Your task to perform on an android device: Search for "usb-a to usb-b" on walmart, select the first entry, and add it to the cart. Image 0: 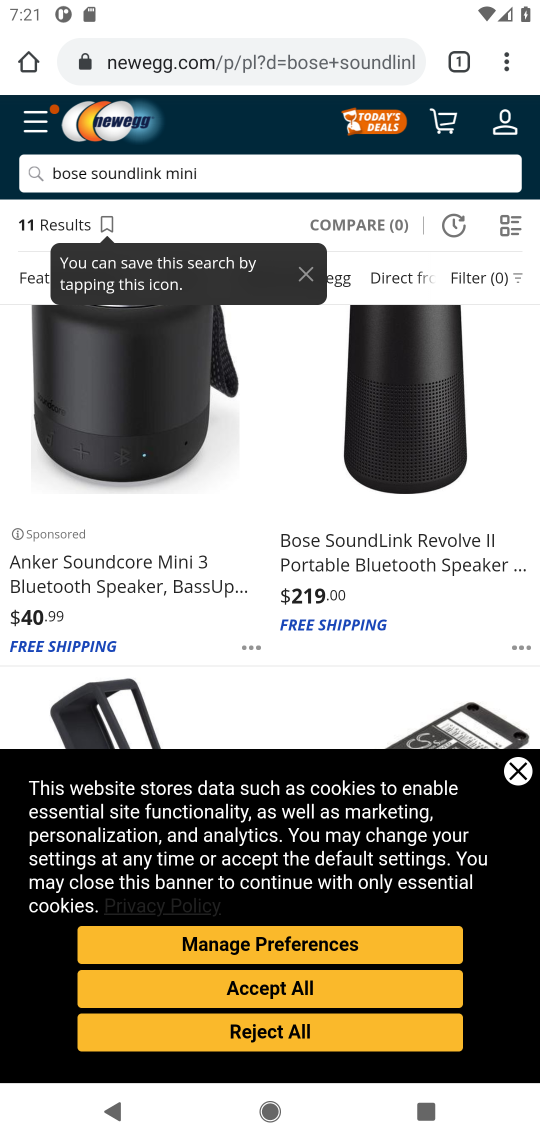
Step 0: click (196, 71)
Your task to perform on an android device: Search for "usb-a to usb-b" on walmart, select the first entry, and add it to the cart. Image 1: 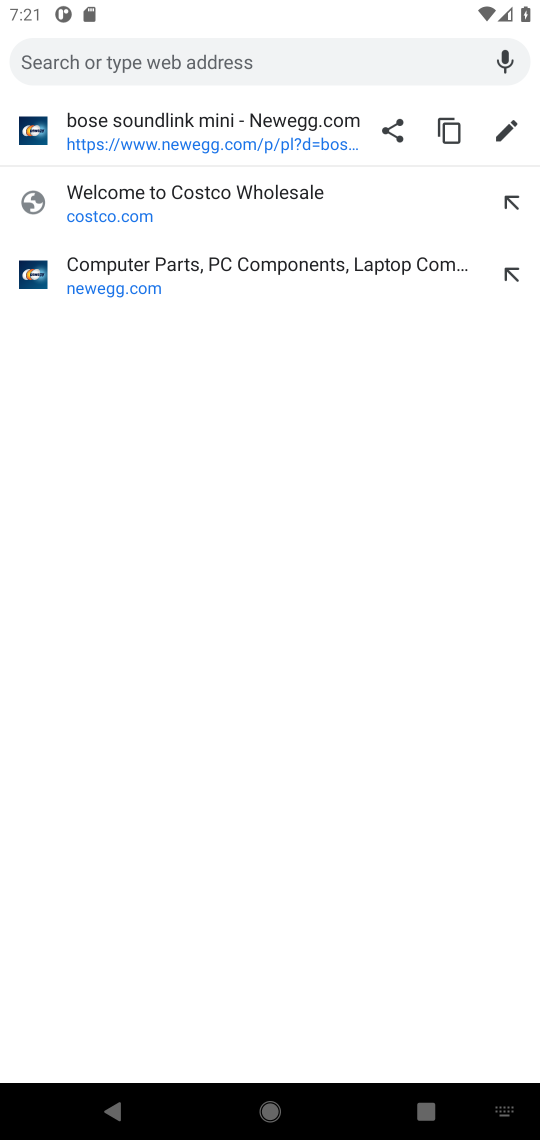
Step 1: type "walmart.com"
Your task to perform on an android device: Search for "usb-a to usb-b" on walmart, select the first entry, and add it to the cart. Image 2: 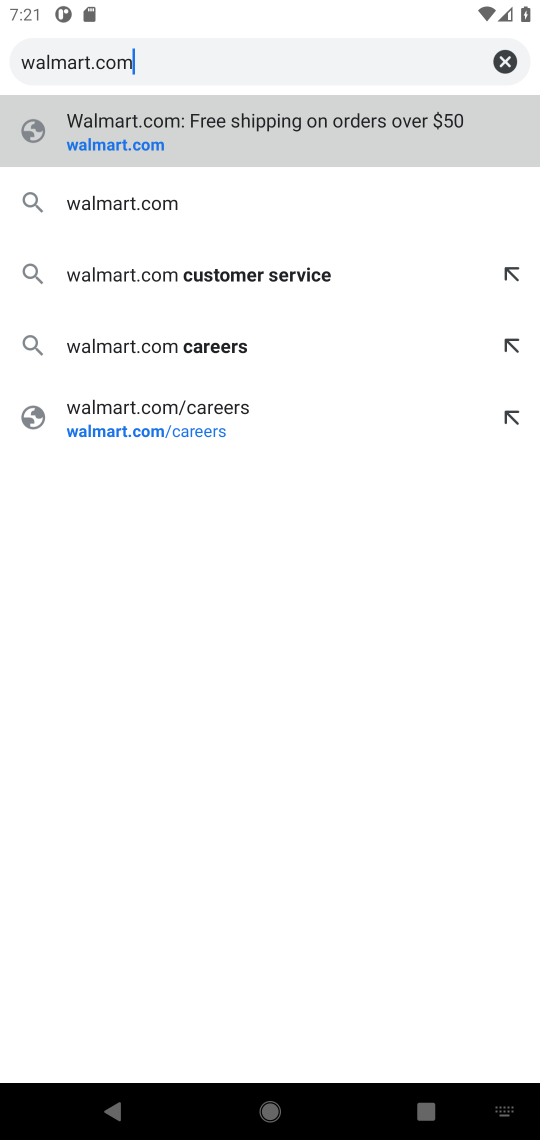
Step 2: click (96, 150)
Your task to perform on an android device: Search for "usb-a to usb-b" on walmart, select the first entry, and add it to the cart. Image 3: 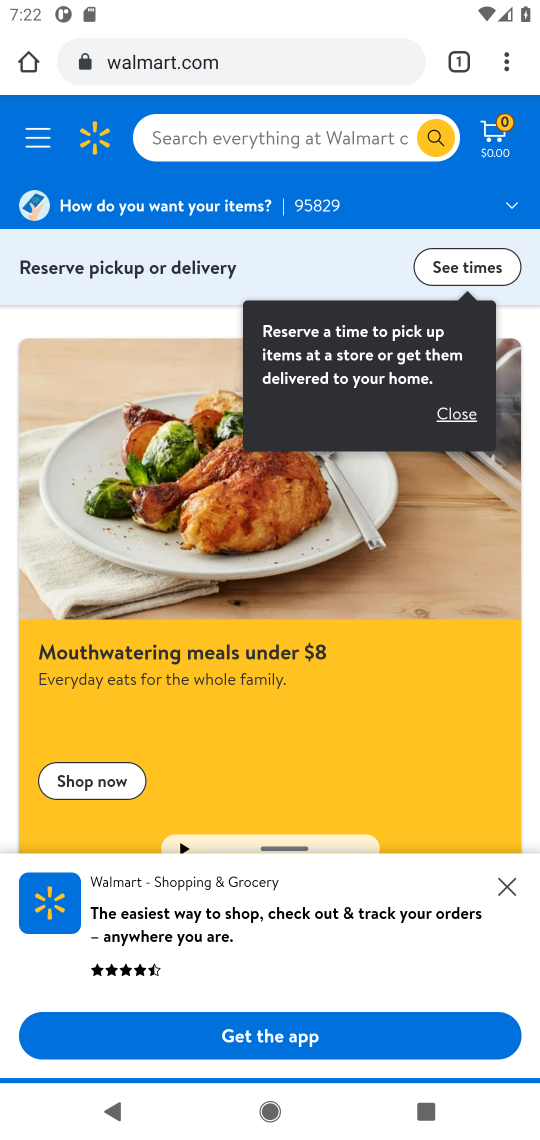
Step 3: click (215, 136)
Your task to perform on an android device: Search for "usb-a to usb-b" on walmart, select the first entry, and add it to the cart. Image 4: 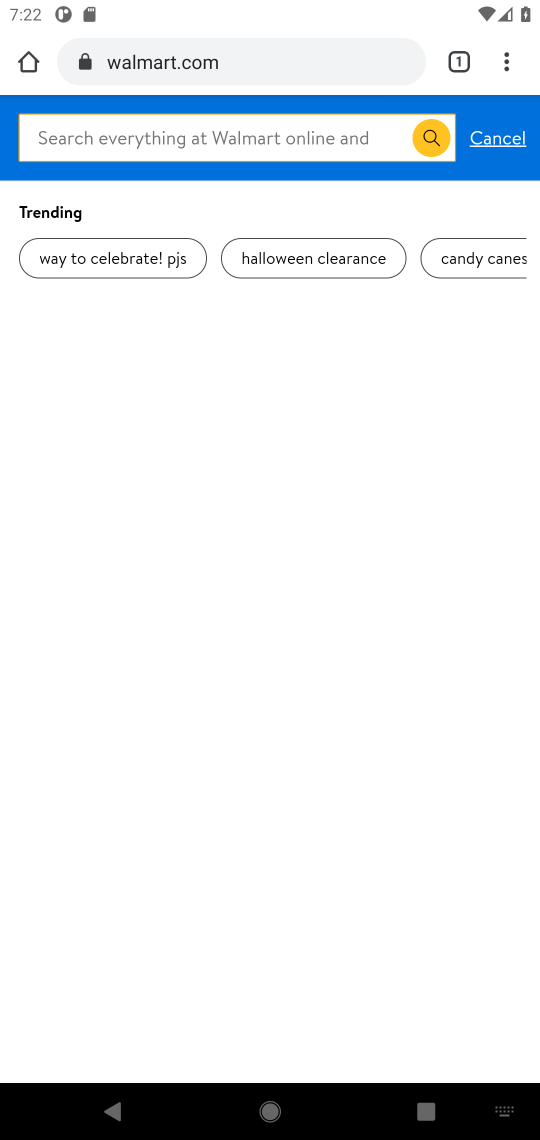
Step 4: type "usb-a to usb-b"
Your task to perform on an android device: Search for "usb-a to usb-b" on walmart, select the first entry, and add it to the cart. Image 5: 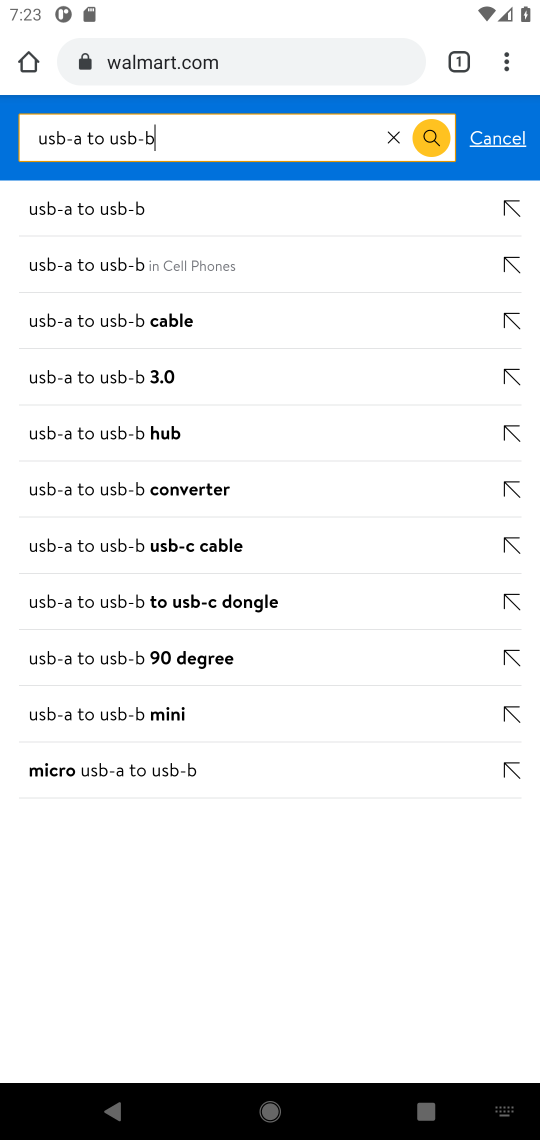
Step 5: click (115, 211)
Your task to perform on an android device: Search for "usb-a to usb-b" on walmart, select the first entry, and add it to the cart. Image 6: 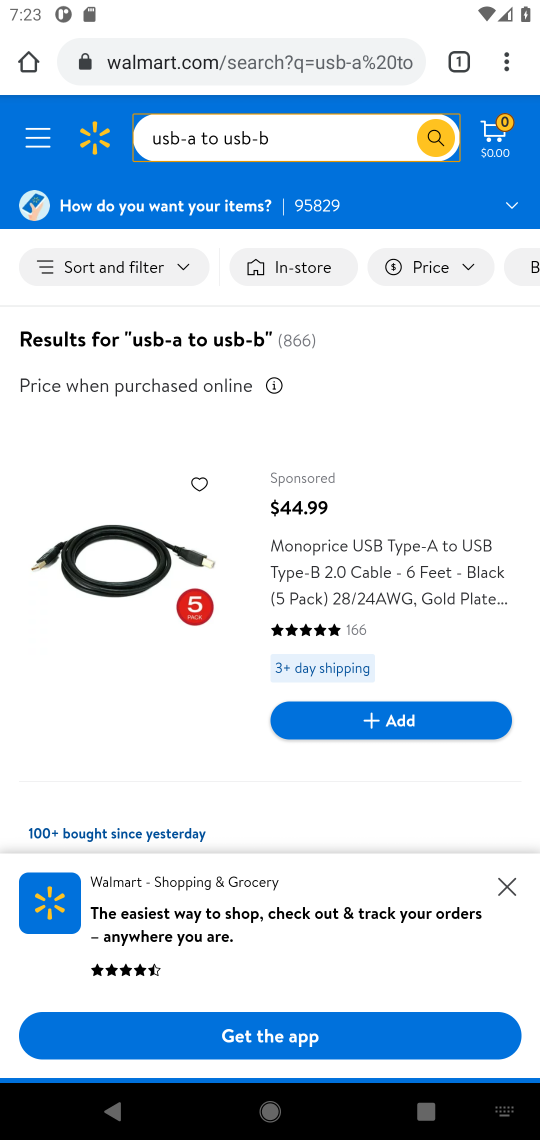
Step 6: click (425, 718)
Your task to perform on an android device: Search for "usb-a to usb-b" on walmart, select the first entry, and add it to the cart. Image 7: 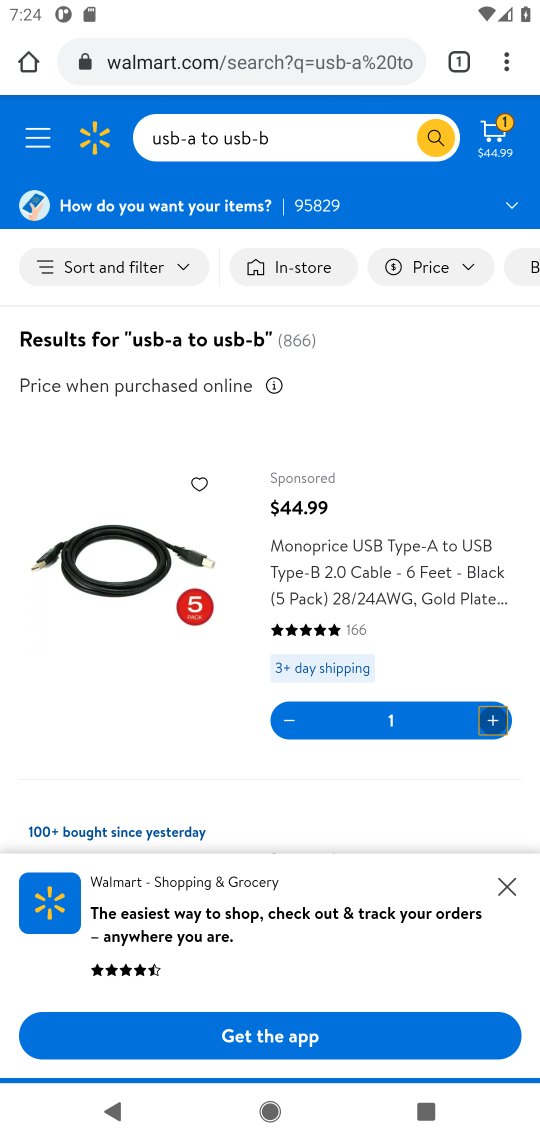
Step 7: task complete